Your task to perform on an android device: check battery use Image 0: 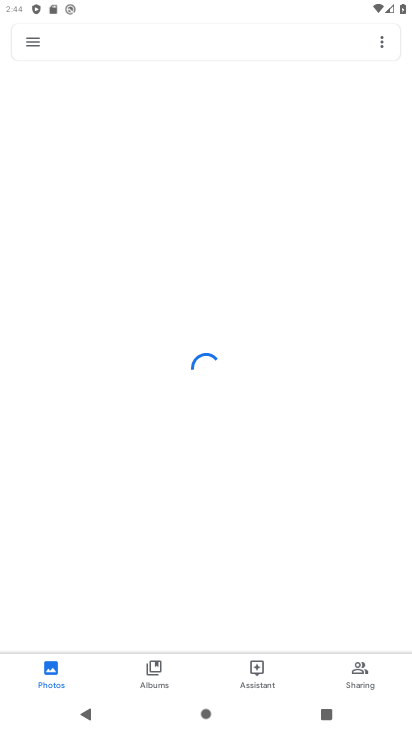
Step 0: press home button
Your task to perform on an android device: check battery use Image 1: 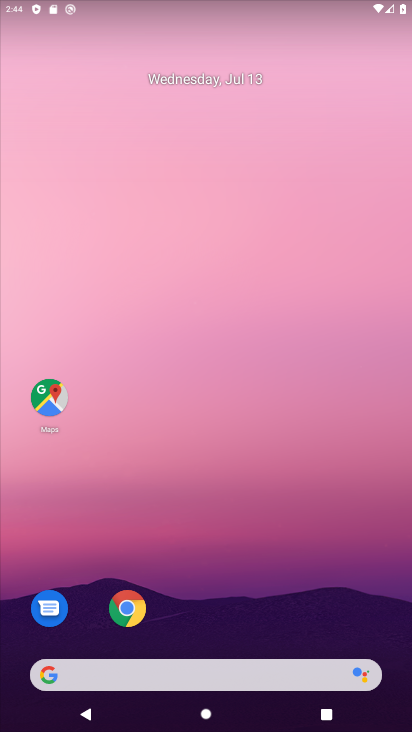
Step 1: drag from (221, 602) to (314, 95)
Your task to perform on an android device: check battery use Image 2: 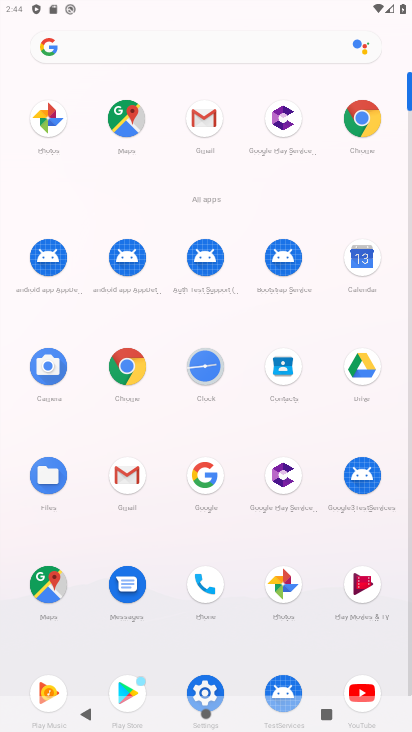
Step 2: click (209, 673)
Your task to perform on an android device: check battery use Image 3: 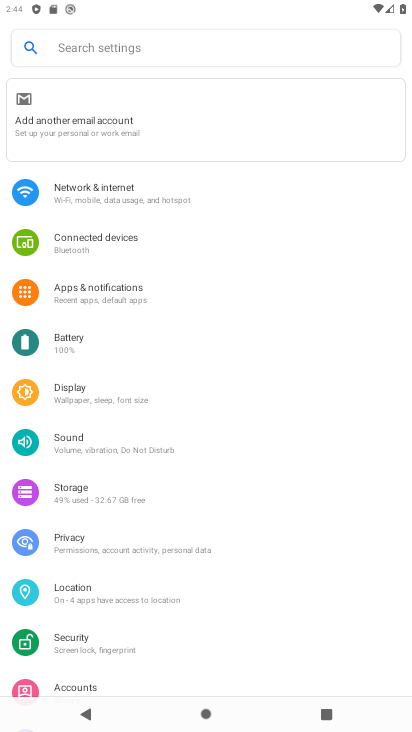
Step 3: click (116, 335)
Your task to perform on an android device: check battery use Image 4: 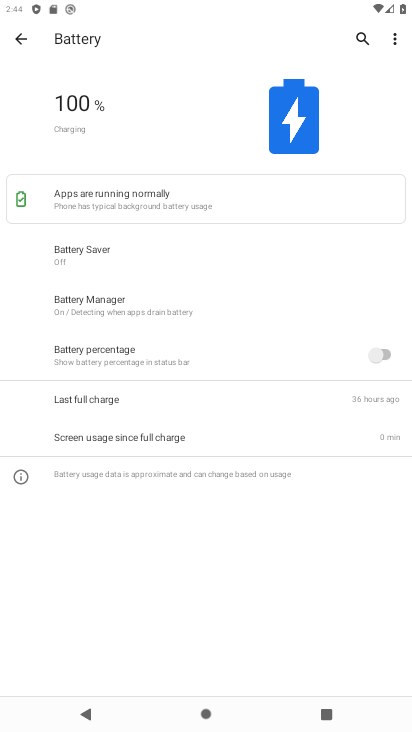
Step 4: click (399, 48)
Your task to perform on an android device: check battery use Image 5: 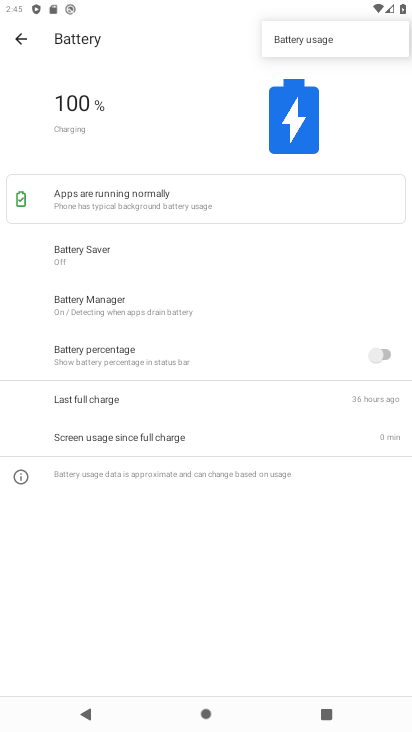
Step 5: click (379, 47)
Your task to perform on an android device: check battery use Image 6: 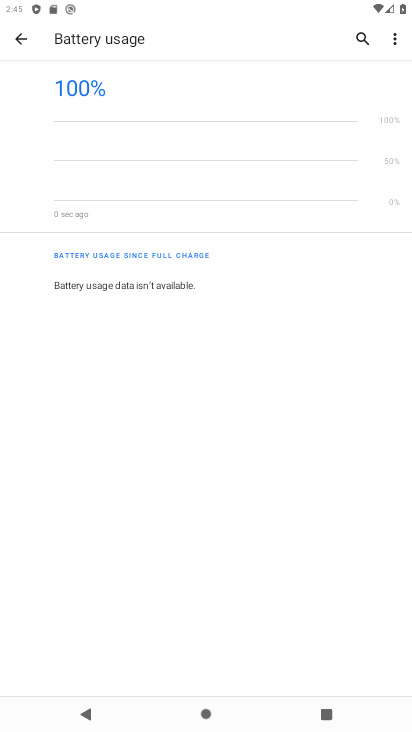
Step 6: task complete